Your task to perform on an android device: What's the weather? Image 0: 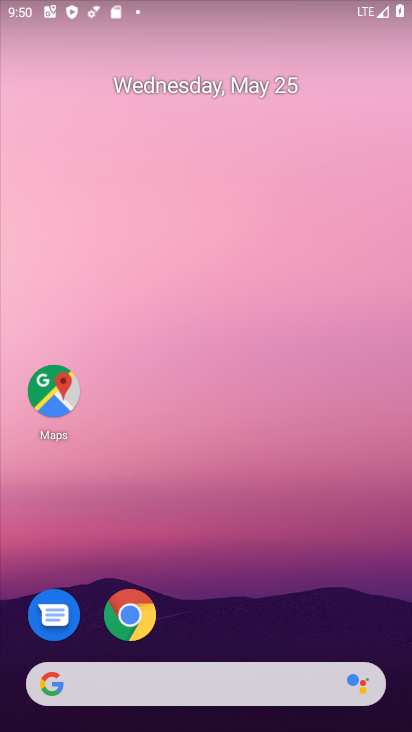
Step 0: click (274, 688)
Your task to perform on an android device: What's the weather? Image 1: 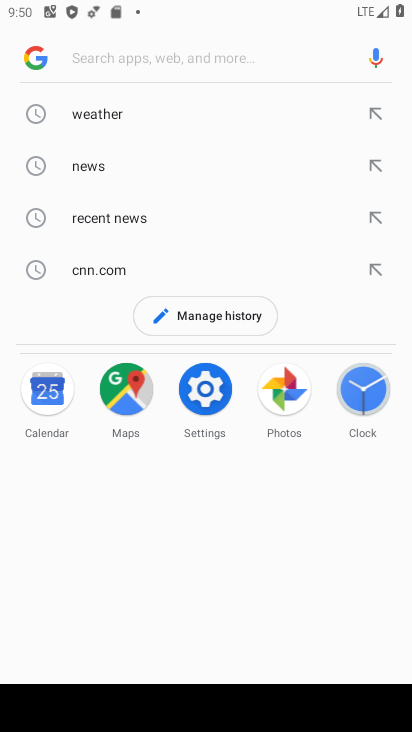
Step 1: click (87, 110)
Your task to perform on an android device: What's the weather? Image 2: 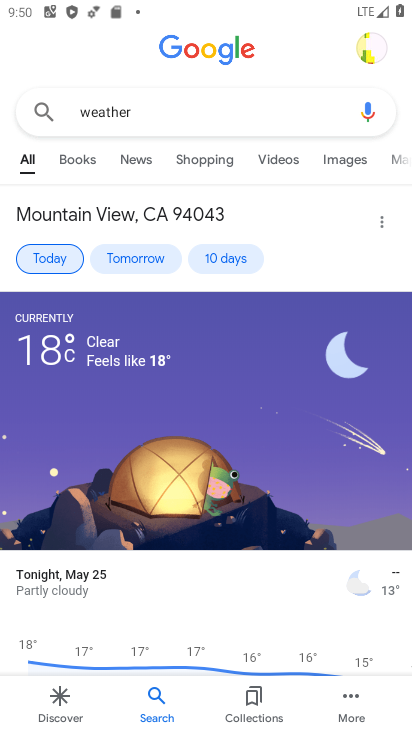
Step 2: click (64, 260)
Your task to perform on an android device: What's the weather? Image 3: 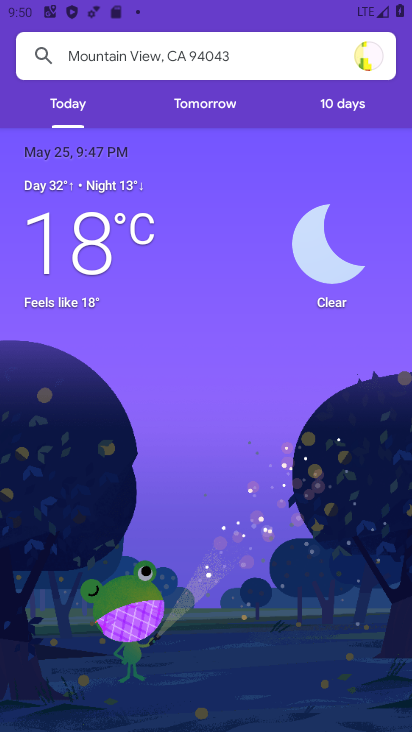
Step 3: task complete